Your task to perform on an android device: Search for Mexican restaurants on Maps Image 0: 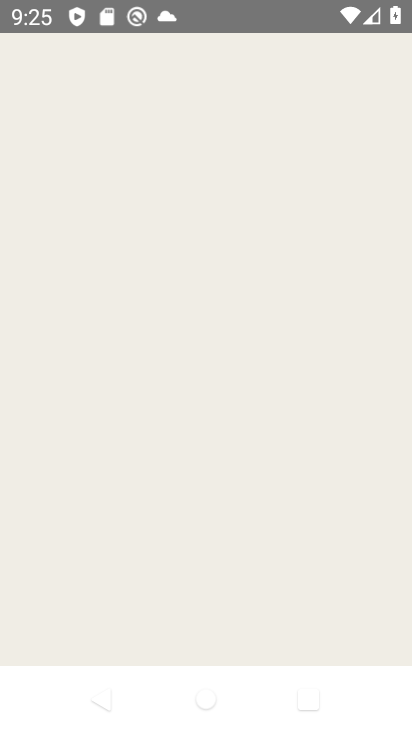
Step 0: click (239, 209)
Your task to perform on an android device: Search for Mexican restaurants on Maps Image 1: 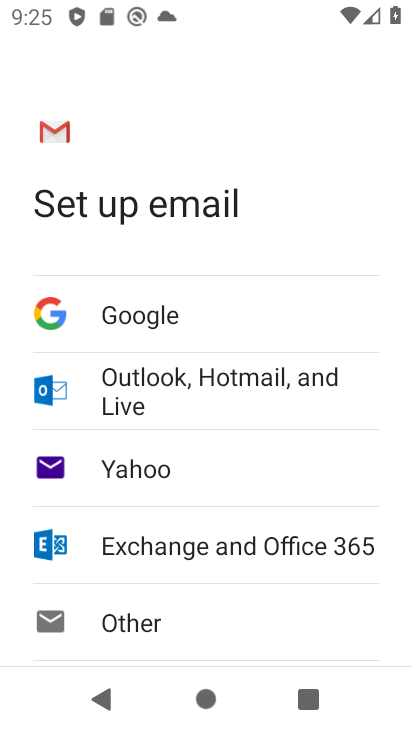
Step 1: press home button
Your task to perform on an android device: Search for Mexican restaurants on Maps Image 2: 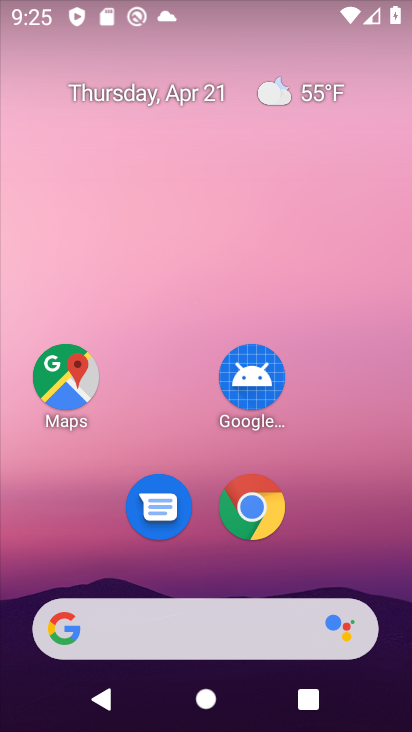
Step 2: drag from (303, 492) to (337, 187)
Your task to perform on an android device: Search for Mexican restaurants on Maps Image 3: 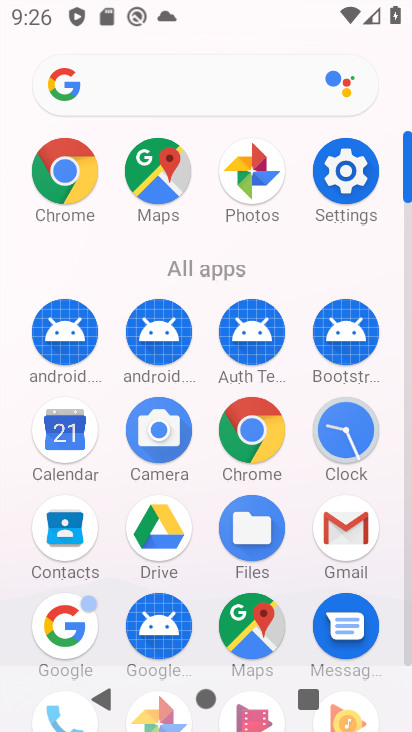
Step 3: click (255, 618)
Your task to perform on an android device: Search for Mexican restaurants on Maps Image 4: 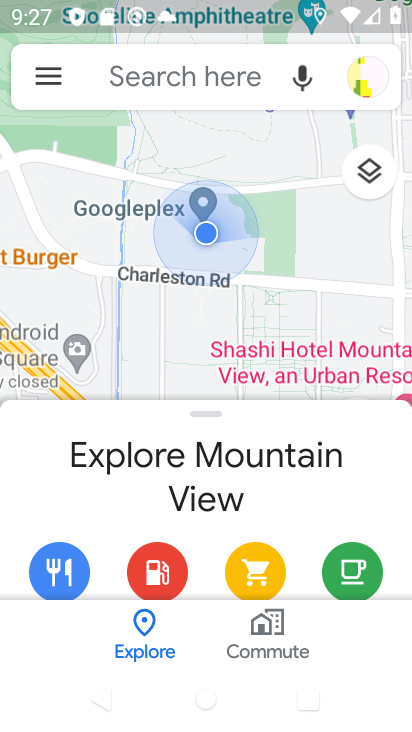
Step 4: click (194, 62)
Your task to perform on an android device: Search for Mexican restaurants on Maps Image 5: 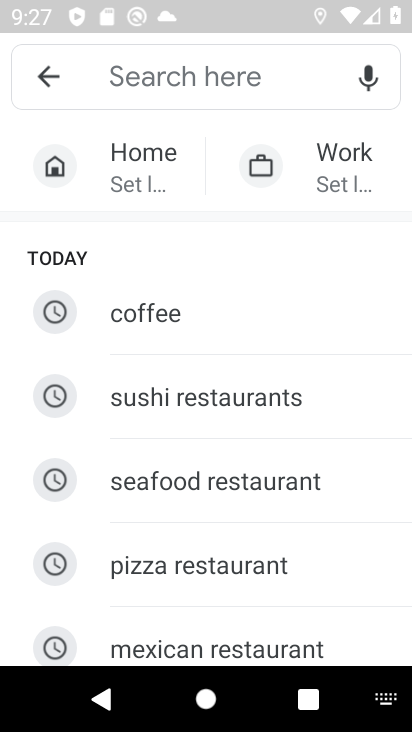
Step 5: type " Mexican restaurants "
Your task to perform on an android device: Search for Mexican restaurants on Maps Image 6: 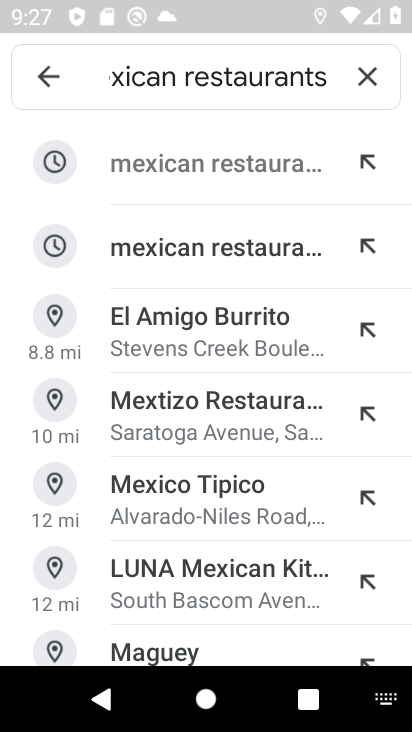
Step 6: click (258, 155)
Your task to perform on an android device: Search for Mexican restaurants on Maps Image 7: 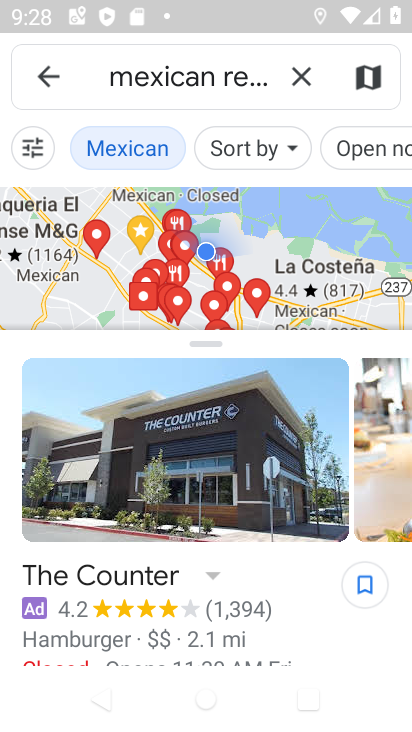
Step 7: task complete